Your task to perform on an android device: Go to CNN.com Image 0: 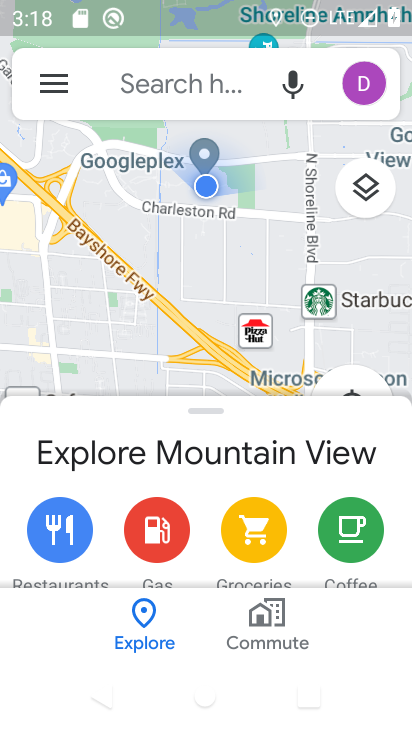
Step 0: press back button
Your task to perform on an android device: Go to CNN.com Image 1: 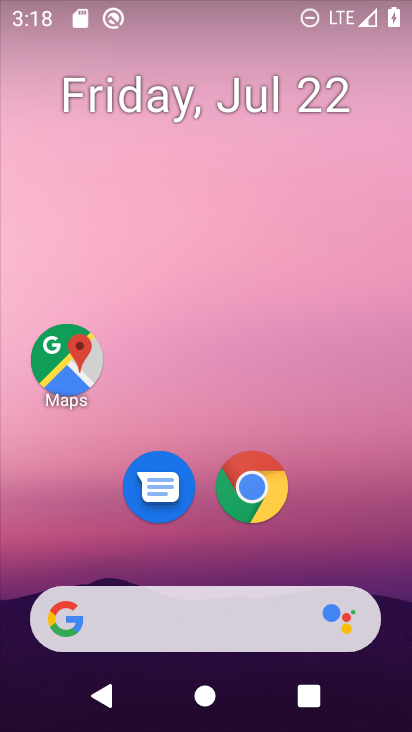
Step 1: click (267, 487)
Your task to perform on an android device: Go to CNN.com Image 2: 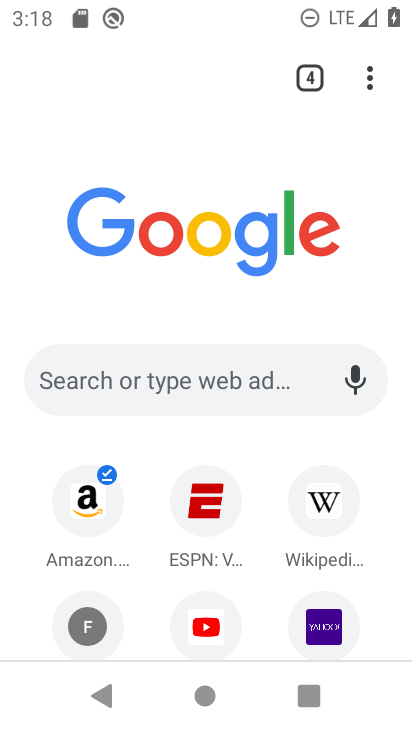
Step 2: click (180, 399)
Your task to perform on an android device: Go to CNN.com Image 3: 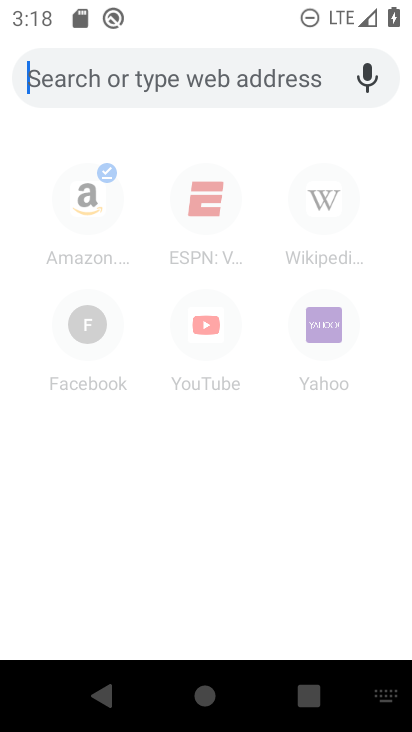
Step 3: type "cnn.com"
Your task to perform on an android device: Go to CNN.com Image 4: 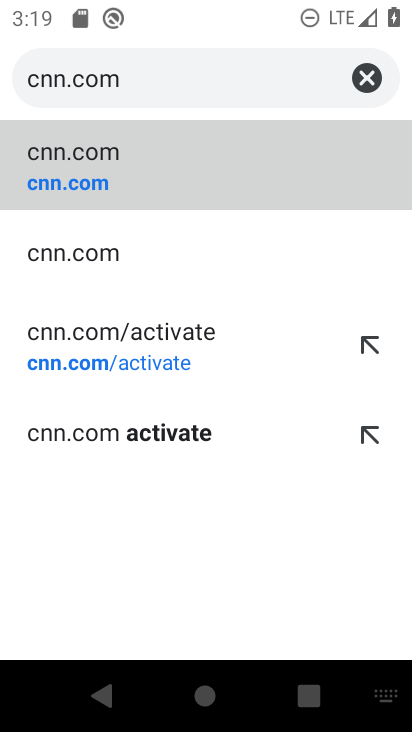
Step 4: click (260, 168)
Your task to perform on an android device: Go to CNN.com Image 5: 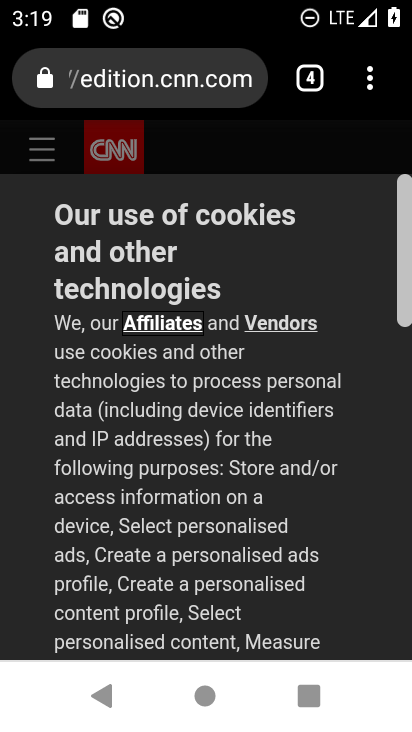
Step 5: task complete